Your task to perform on an android device: turn on the 12-hour format for clock Image 0: 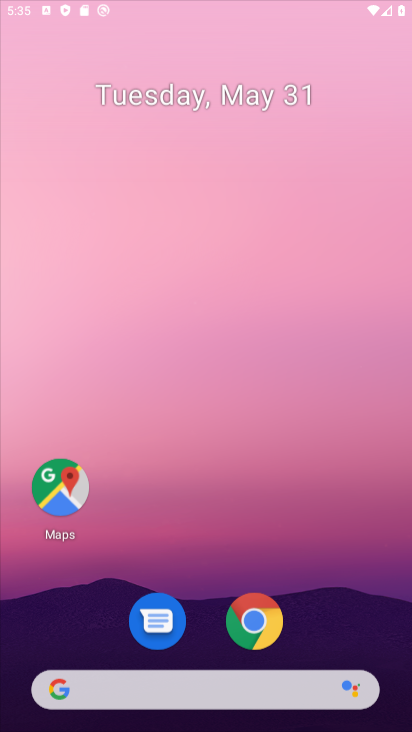
Step 0: drag from (291, 629) to (334, 0)
Your task to perform on an android device: turn on the 12-hour format for clock Image 1: 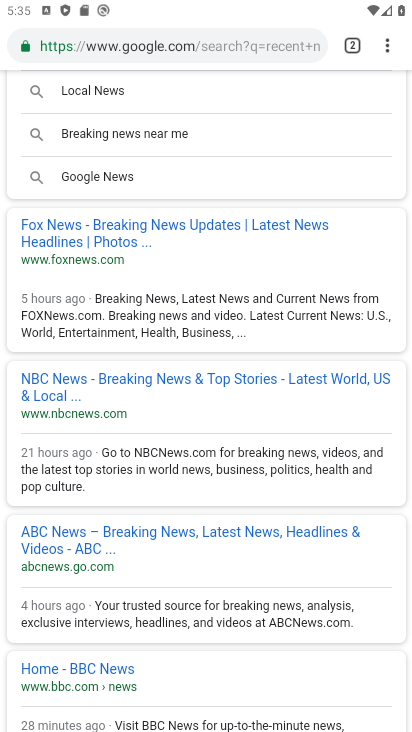
Step 1: press home button
Your task to perform on an android device: turn on the 12-hour format for clock Image 2: 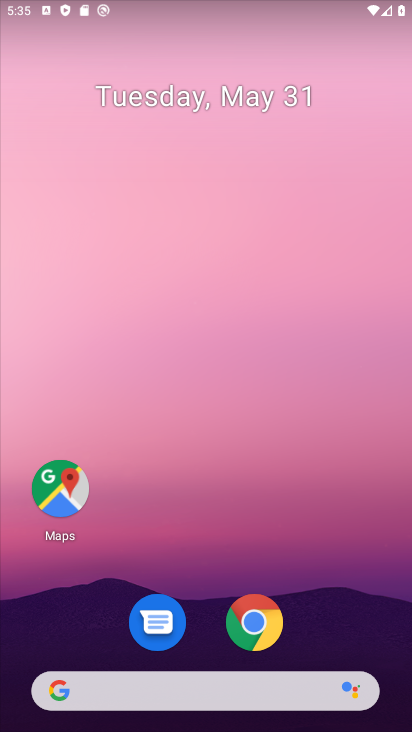
Step 2: drag from (197, 731) to (203, 10)
Your task to perform on an android device: turn on the 12-hour format for clock Image 3: 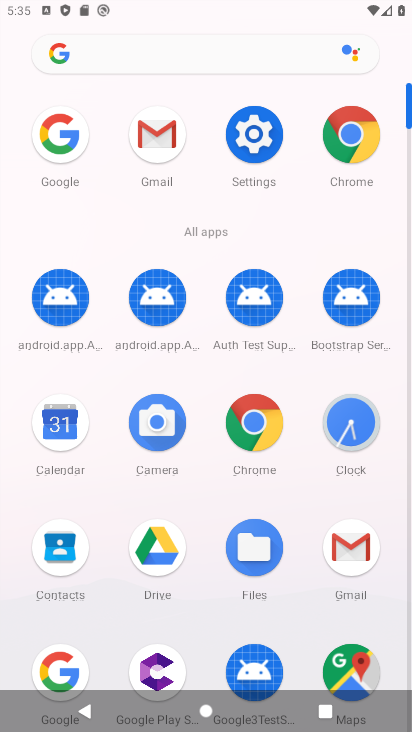
Step 3: click (353, 427)
Your task to perform on an android device: turn on the 12-hour format for clock Image 4: 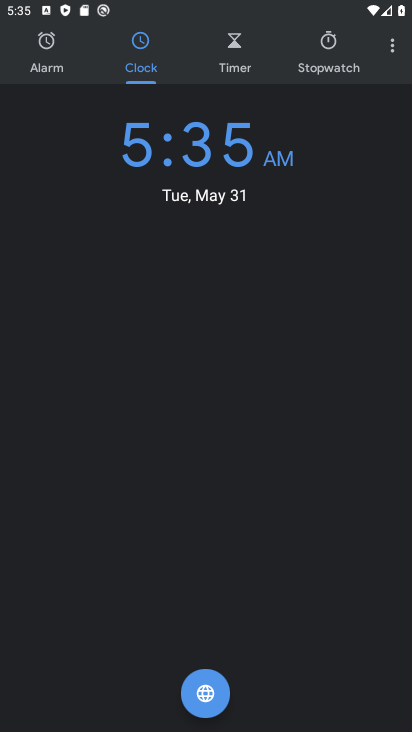
Step 4: drag from (388, 53) to (310, 95)
Your task to perform on an android device: turn on the 12-hour format for clock Image 5: 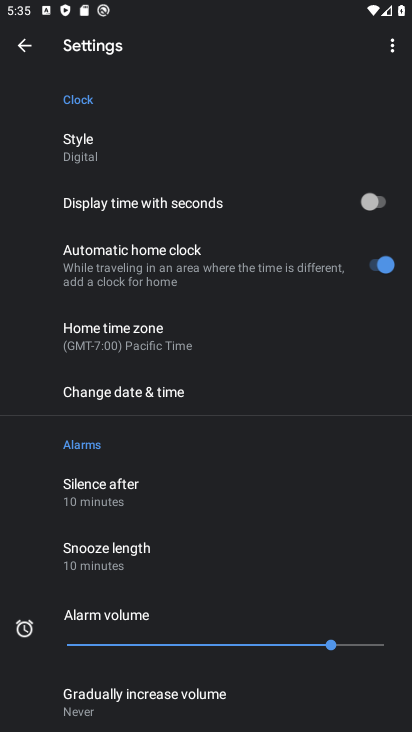
Step 5: click (174, 378)
Your task to perform on an android device: turn on the 12-hour format for clock Image 6: 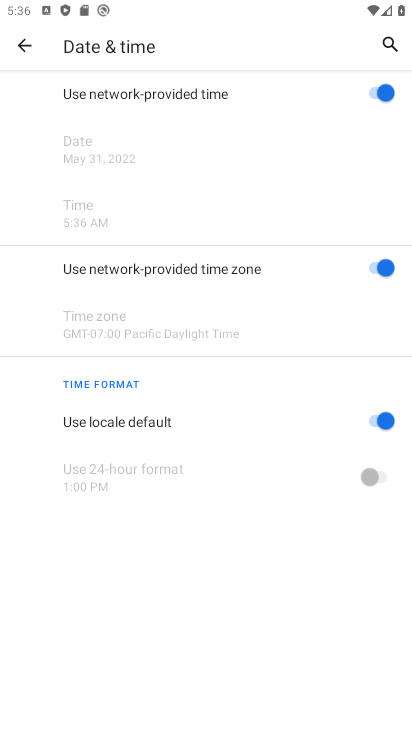
Step 6: task complete